Your task to perform on an android device: Open internet settings Image 0: 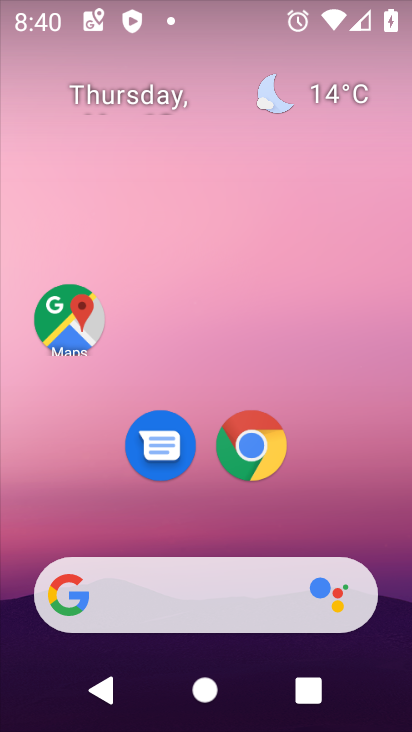
Step 0: drag from (225, 726) to (213, 17)
Your task to perform on an android device: Open internet settings Image 1: 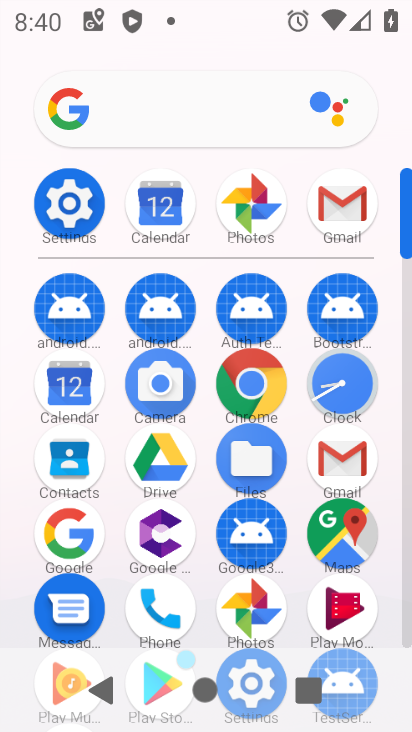
Step 1: click (64, 202)
Your task to perform on an android device: Open internet settings Image 2: 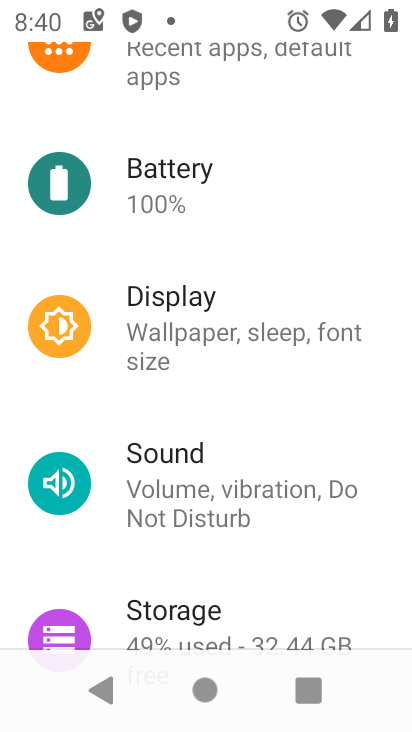
Step 2: drag from (331, 153) to (325, 525)
Your task to perform on an android device: Open internet settings Image 3: 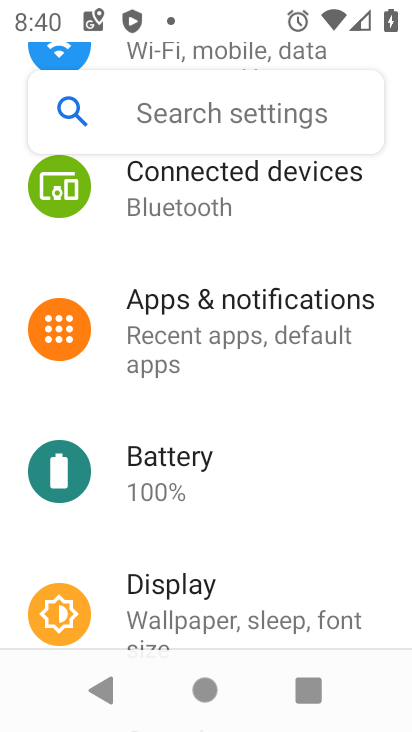
Step 3: drag from (319, 216) to (317, 616)
Your task to perform on an android device: Open internet settings Image 4: 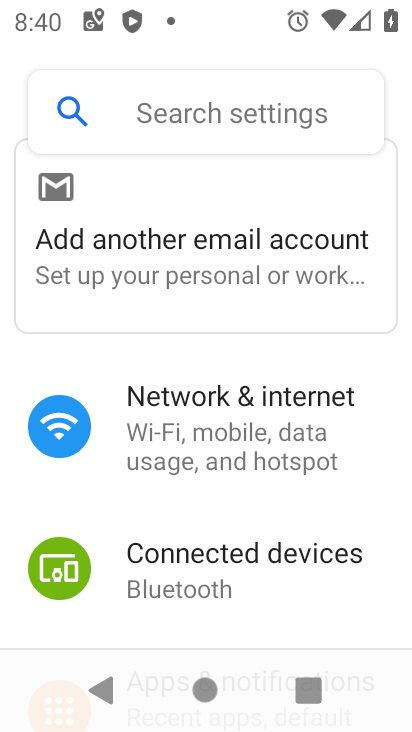
Step 4: click (260, 442)
Your task to perform on an android device: Open internet settings Image 5: 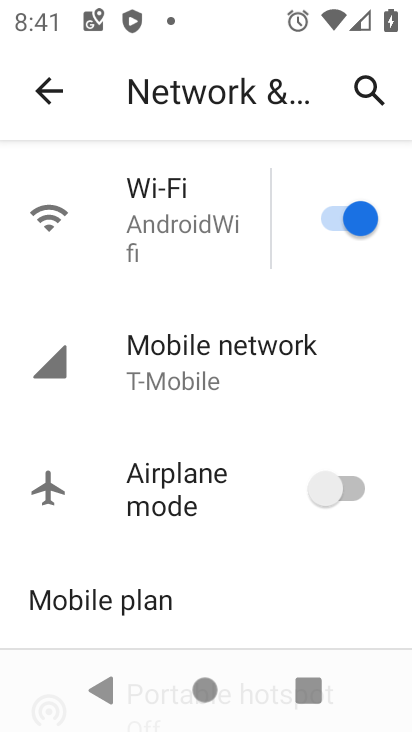
Step 5: task complete